Your task to perform on an android device: Is it going to rain this weekend? Image 0: 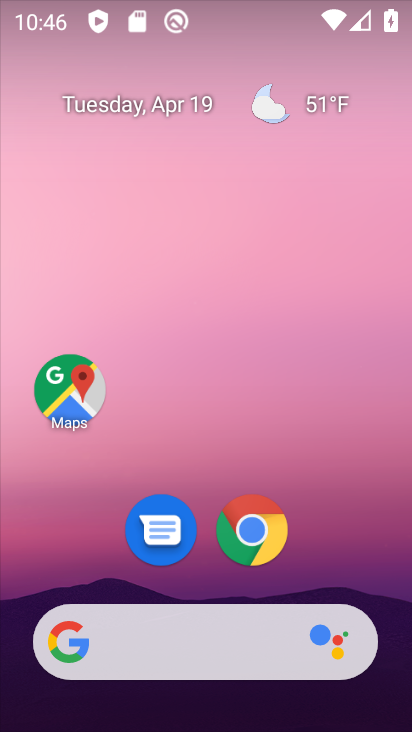
Step 0: press home button
Your task to perform on an android device: Is it going to rain this weekend? Image 1: 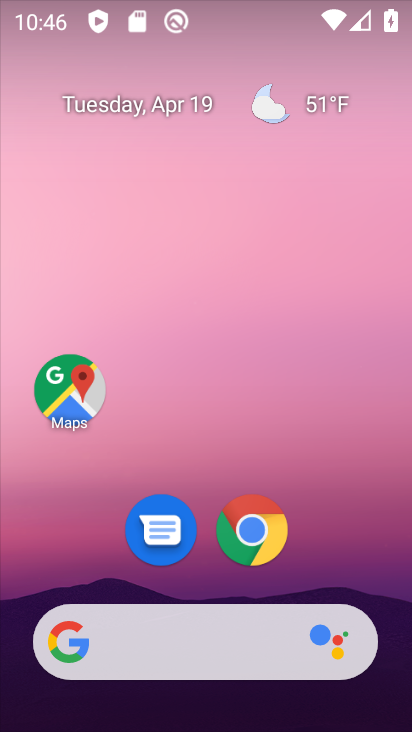
Step 1: drag from (346, 542) to (320, 156)
Your task to perform on an android device: Is it going to rain this weekend? Image 2: 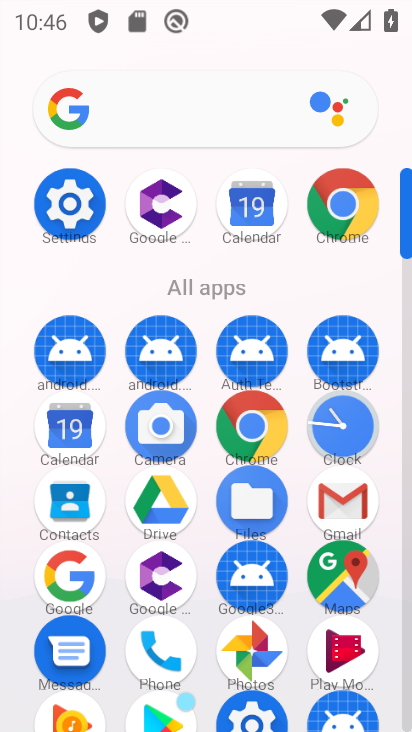
Step 2: press home button
Your task to perform on an android device: Is it going to rain this weekend? Image 3: 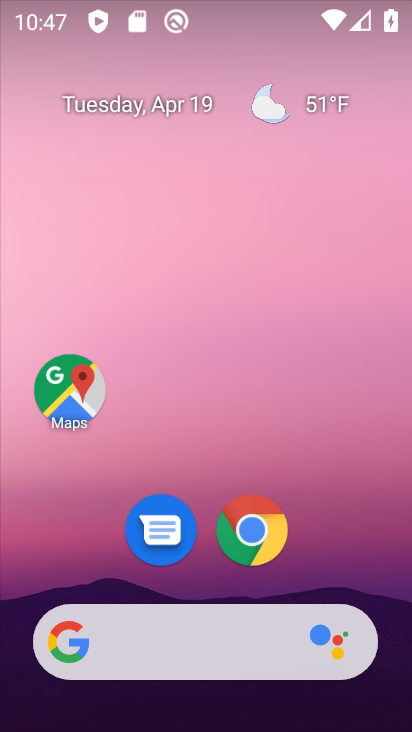
Step 3: click (320, 103)
Your task to perform on an android device: Is it going to rain this weekend? Image 4: 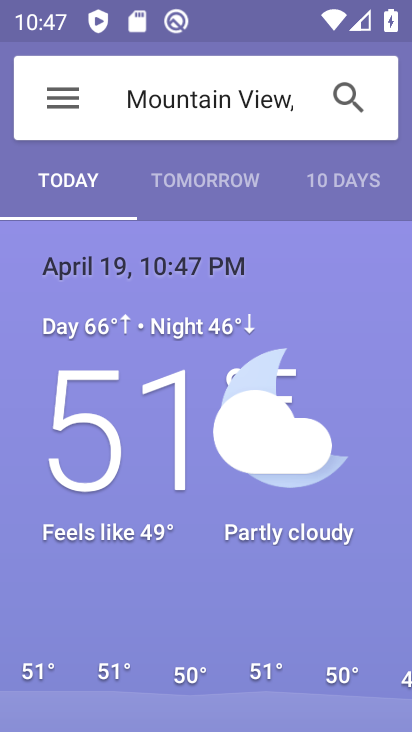
Step 4: click (345, 177)
Your task to perform on an android device: Is it going to rain this weekend? Image 5: 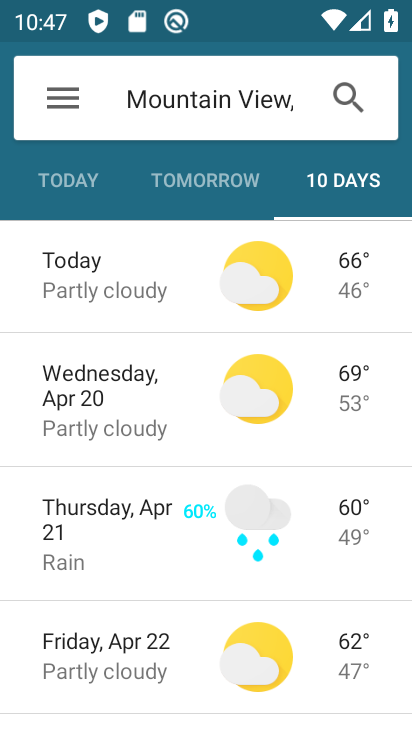
Step 5: drag from (175, 585) to (188, 302)
Your task to perform on an android device: Is it going to rain this weekend? Image 6: 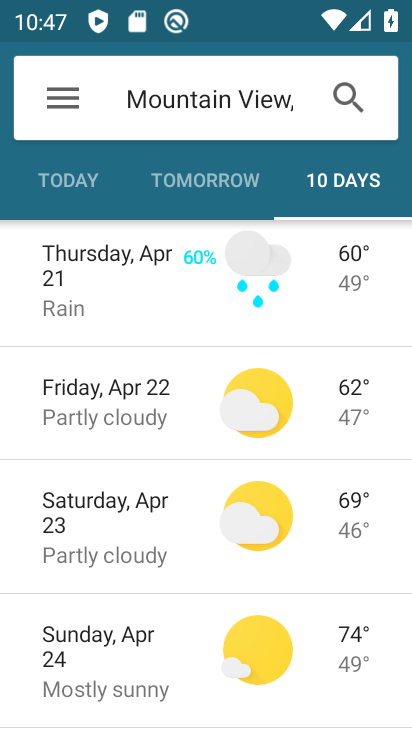
Step 6: click (150, 501)
Your task to perform on an android device: Is it going to rain this weekend? Image 7: 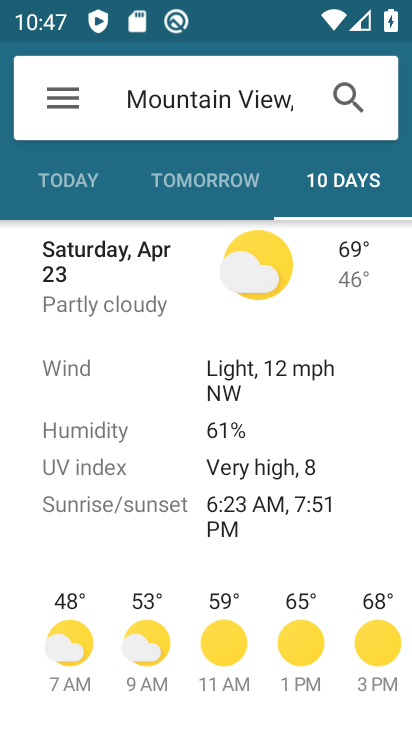
Step 7: task complete